Your task to perform on an android device: uninstall "Pinterest" Image 0: 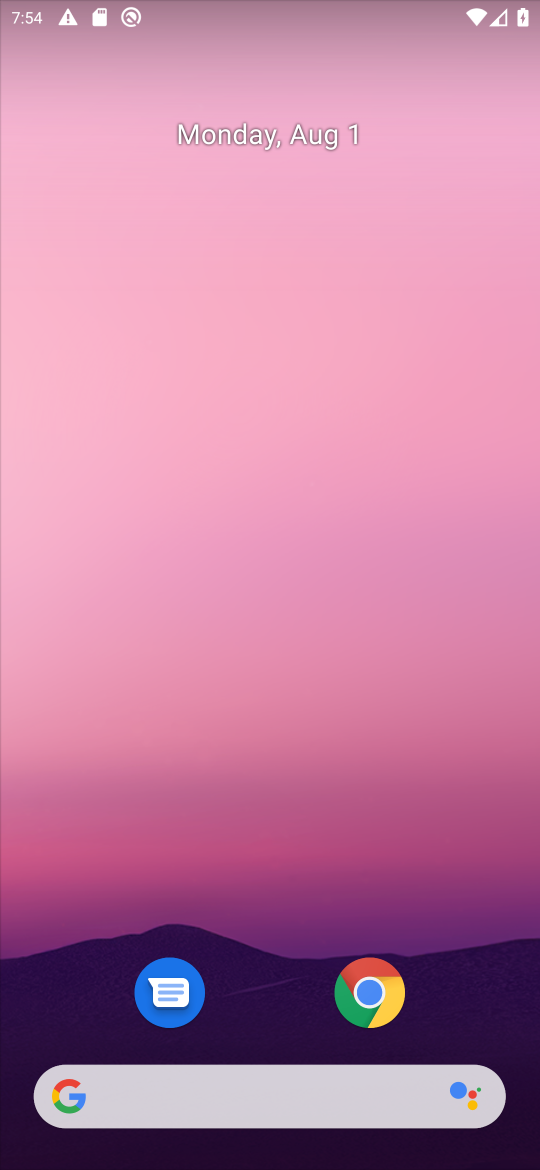
Step 0: press home button
Your task to perform on an android device: uninstall "Pinterest" Image 1: 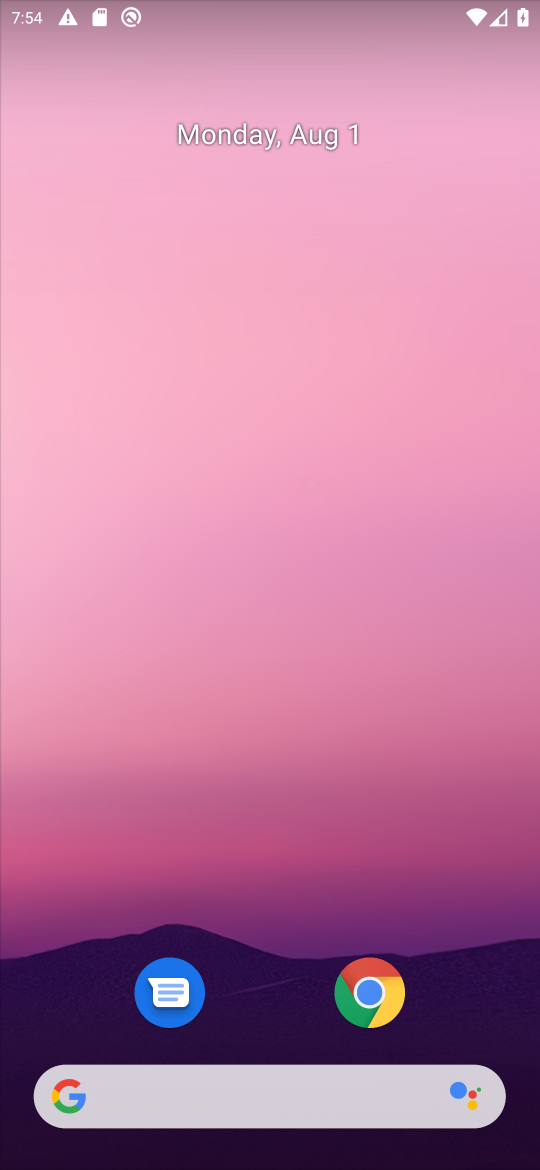
Step 1: drag from (269, 965) to (281, 116)
Your task to perform on an android device: uninstall "Pinterest" Image 2: 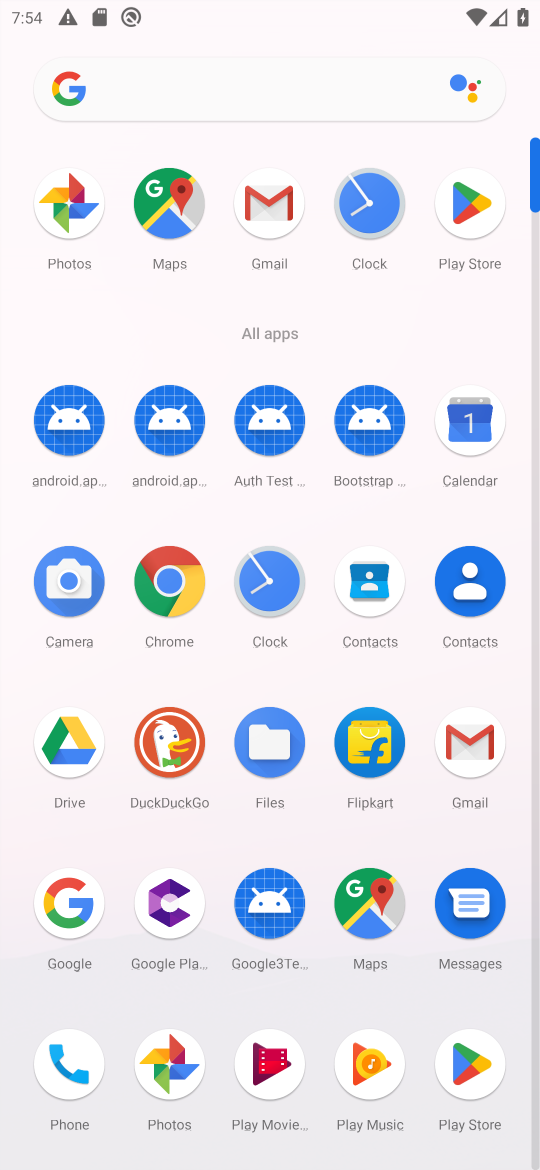
Step 2: click (464, 195)
Your task to perform on an android device: uninstall "Pinterest" Image 3: 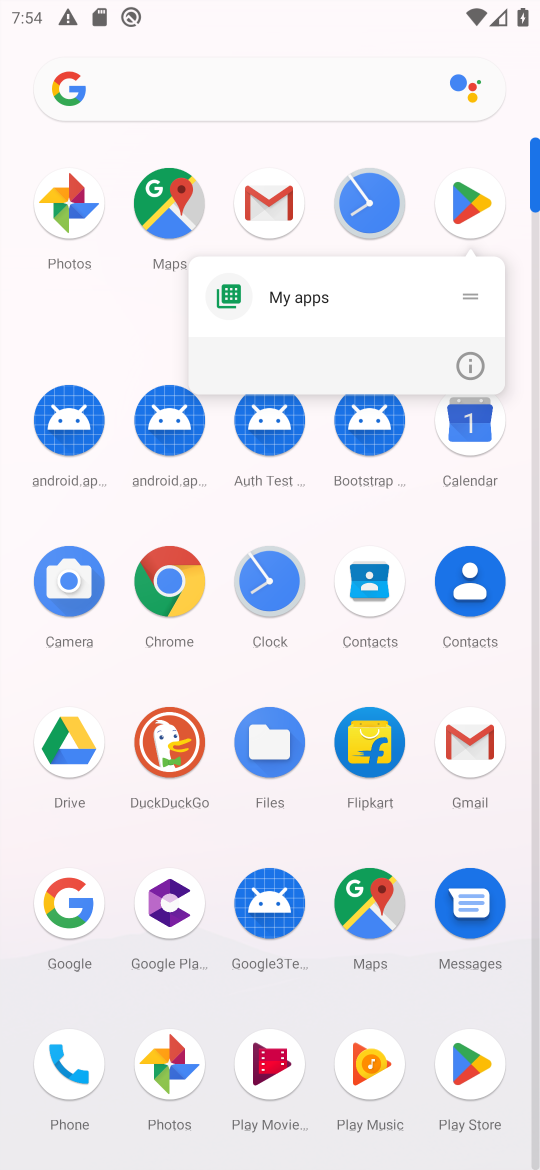
Step 3: click (464, 195)
Your task to perform on an android device: uninstall "Pinterest" Image 4: 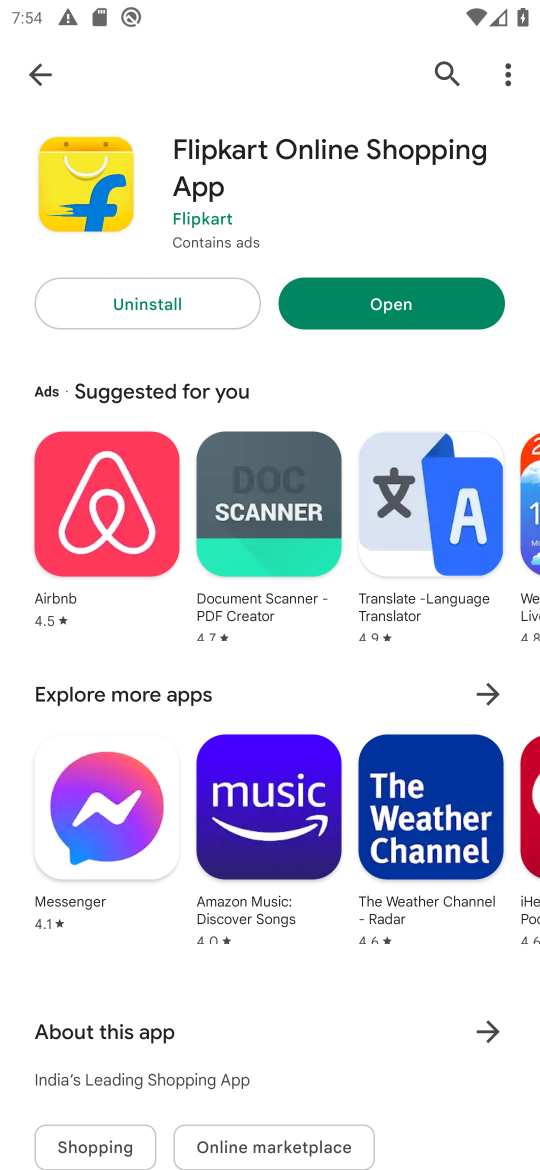
Step 4: click (450, 61)
Your task to perform on an android device: uninstall "Pinterest" Image 5: 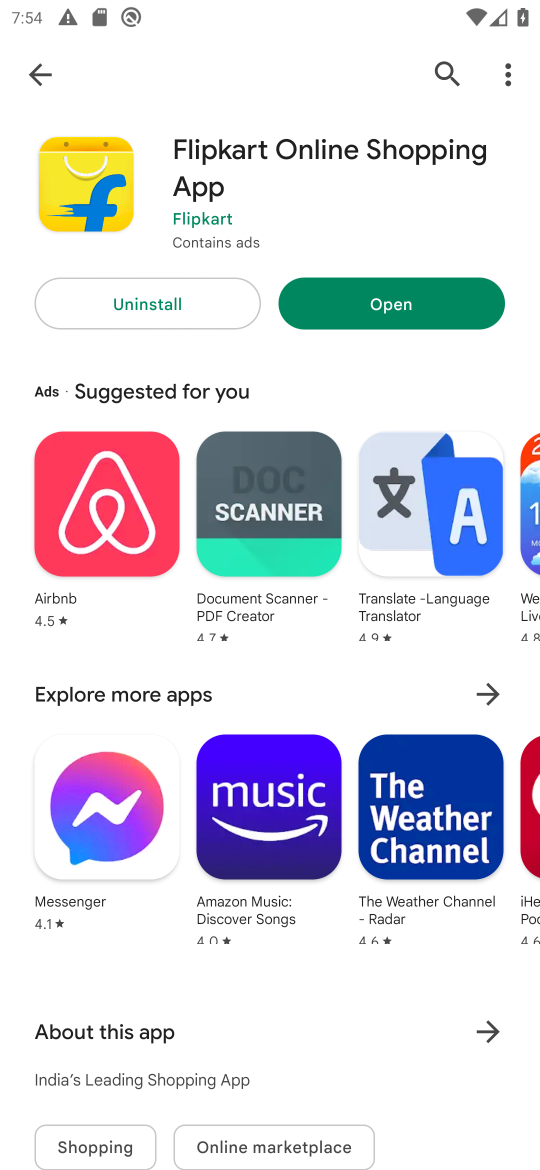
Step 5: click (439, 65)
Your task to perform on an android device: uninstall "Pinterest" Image 6: 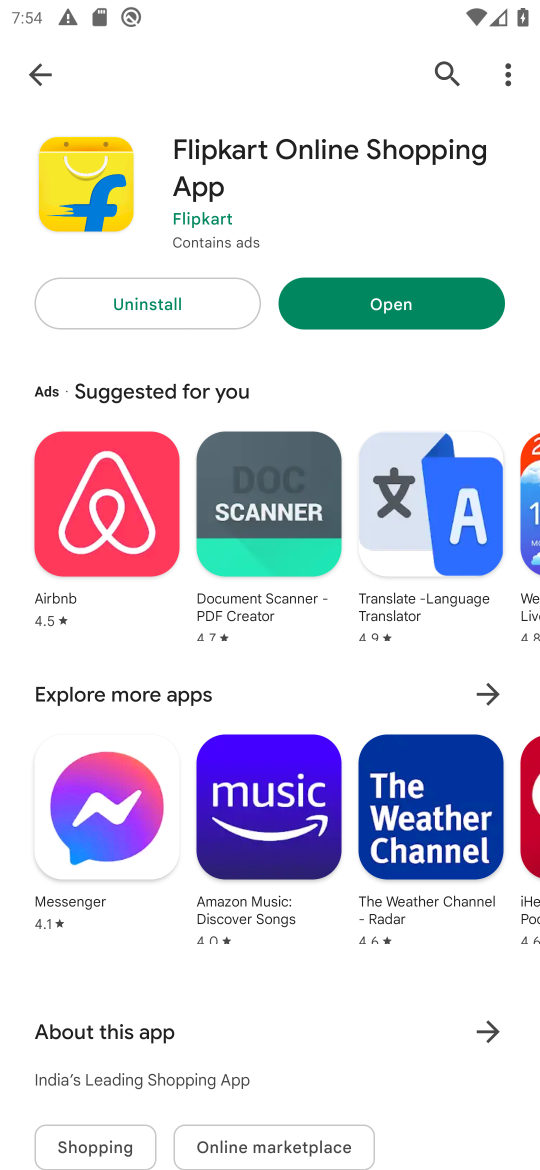
Step 6: click (26, 77)
Your task to perform on an android device: uninstall "Pinterest" Image 7: 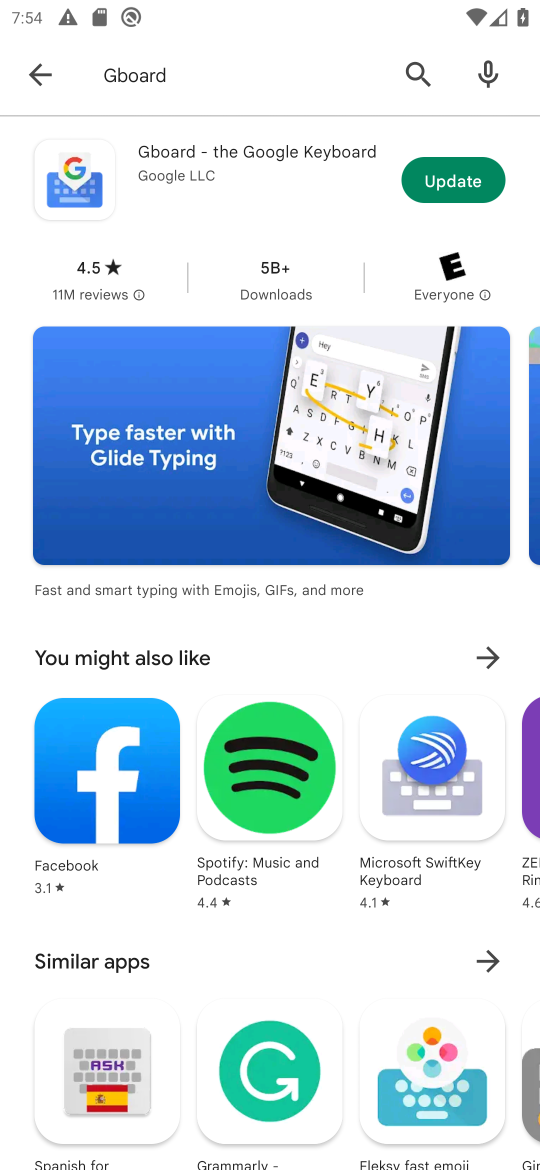
Step 7: click (252, 75)
Your task to perform on an android device: uninstall "Pinterest" Image 8: 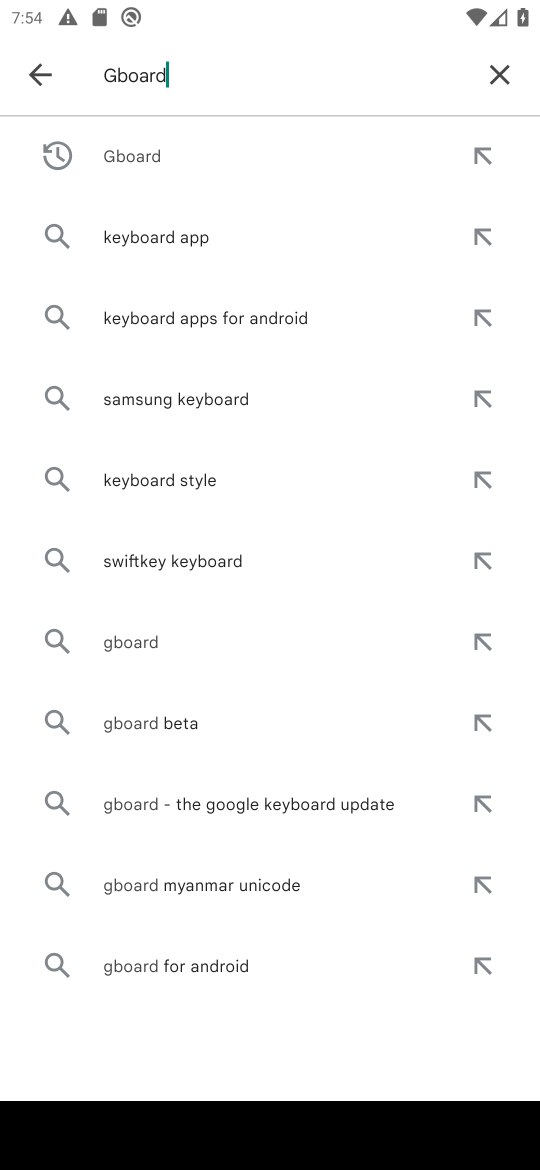
Step 8: click (497, 73)
Your task to perform on an android device: uninstall "Pinterest" Image 9: 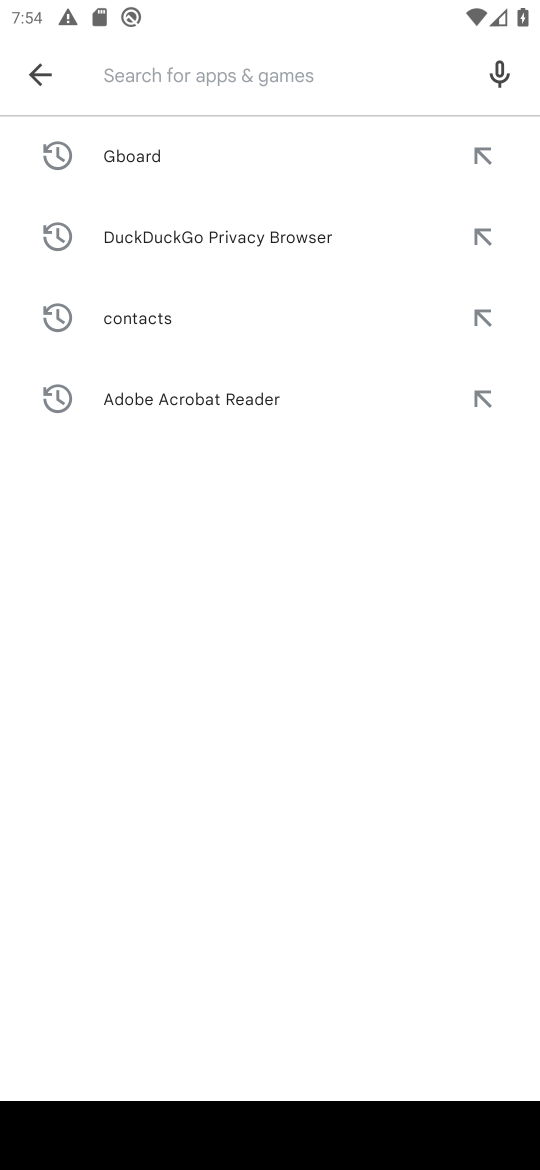
Step 9: type "Pinterest"
Your task to perform on an android device: uninstall "Pinterest" Image 10: 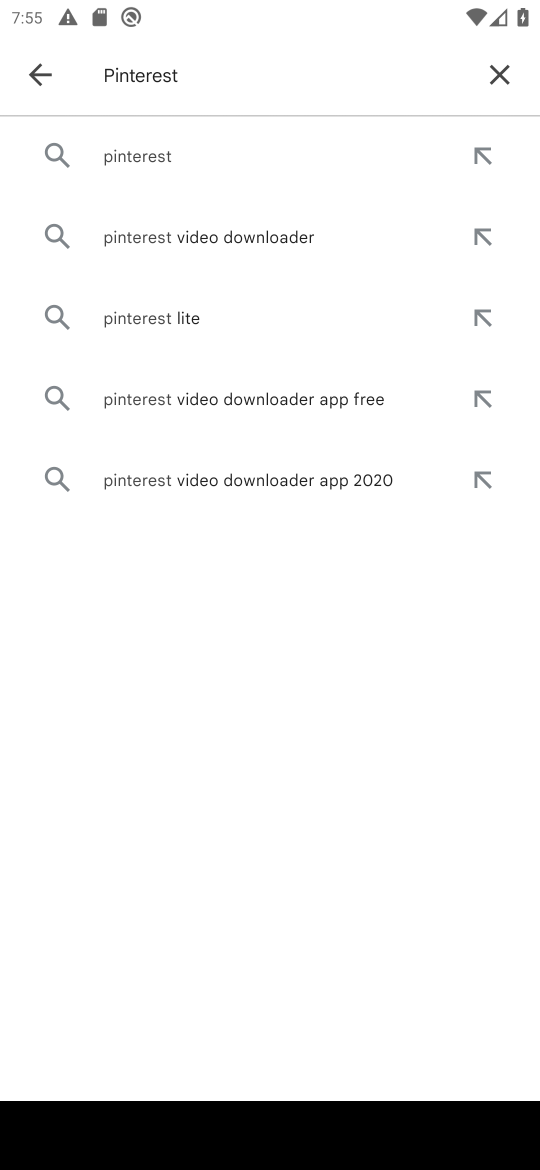
Step 10: press enter
Your task to perform on an android device: uninstall "Pinterest" Image 11: 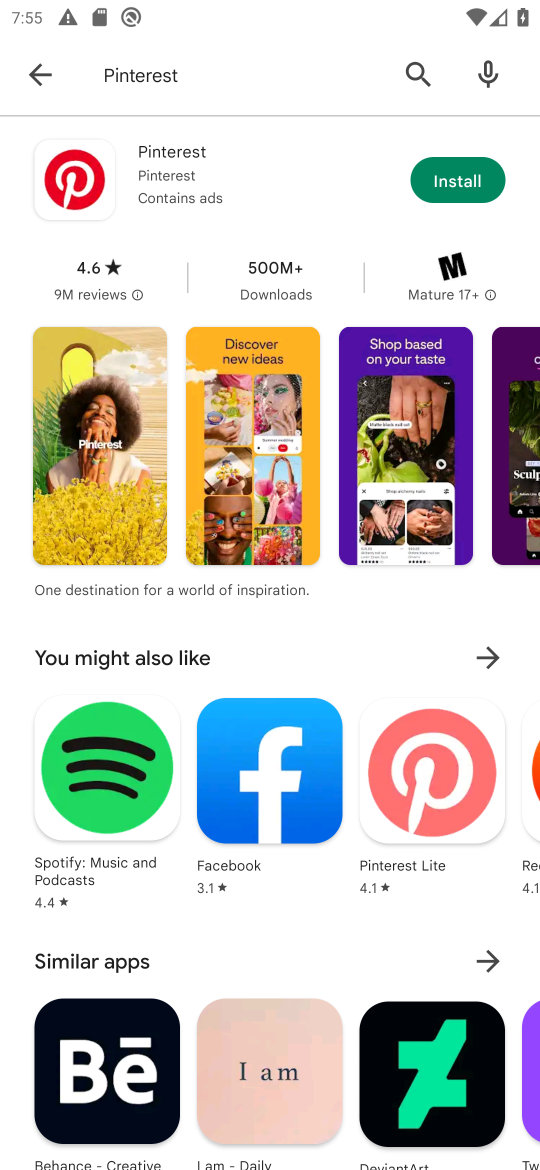
Step 11: click (198, 163)
Your task to perform on an android device: uninstall "Pinterest" Image 12: 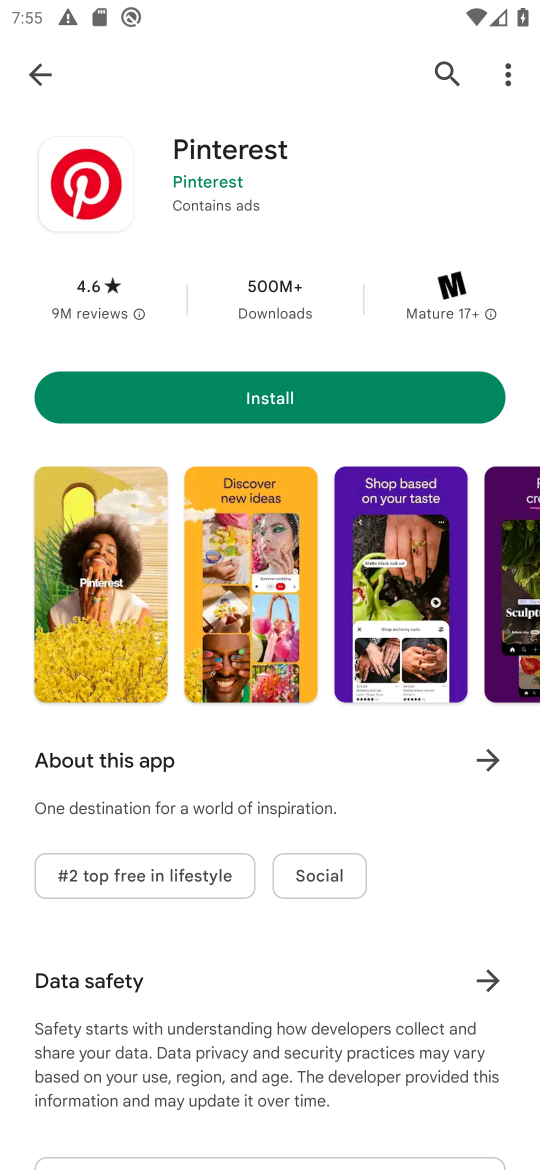
Step 12: task complete